Your task to perform on an android device: Open the stopwatch Image 0: 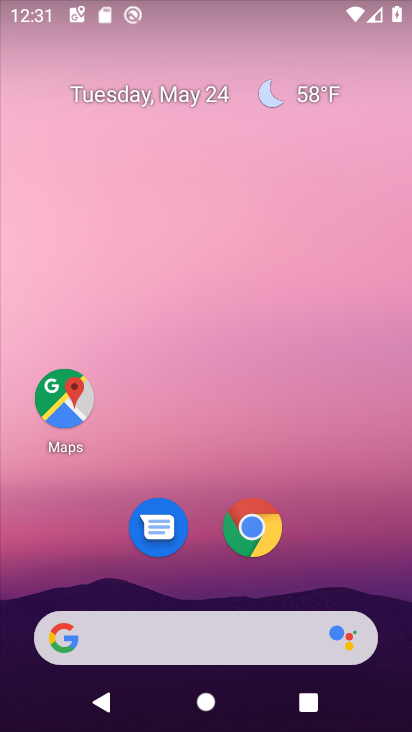
Step 0: drag from (401, 594) to (289, 168)
Your task to perform on an android device: Open the stopwatch Image 1: 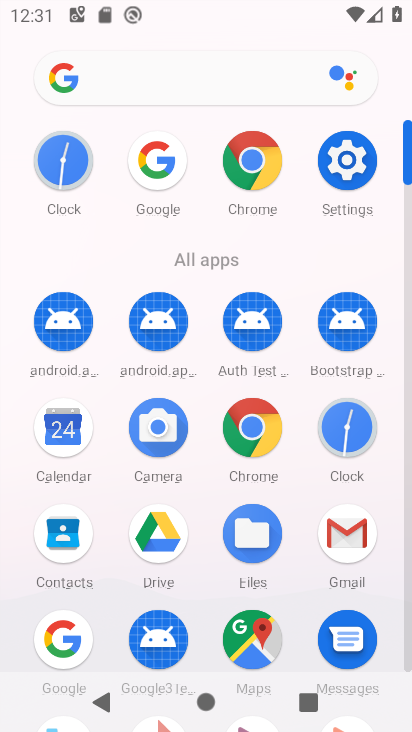
Step 1: click (76, 159)
Your task to perform on an android device: Open the stopwatch Image 2: 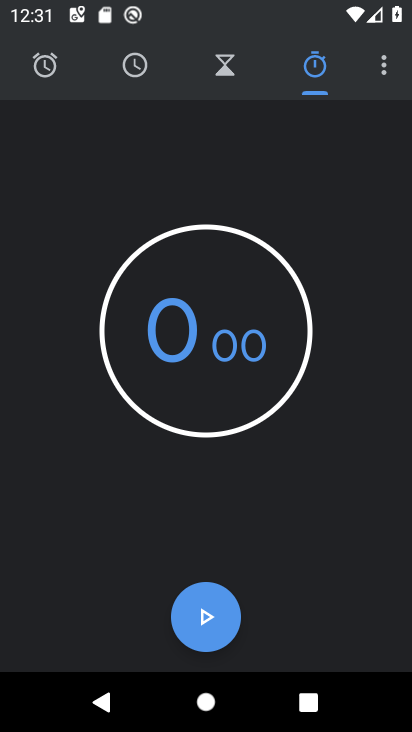
Step 2: task complete